Your task to perform on an android device: open app "Pandora - Music & Podcasts" (install if not already installed), go to login, and select forgot password Image 0: 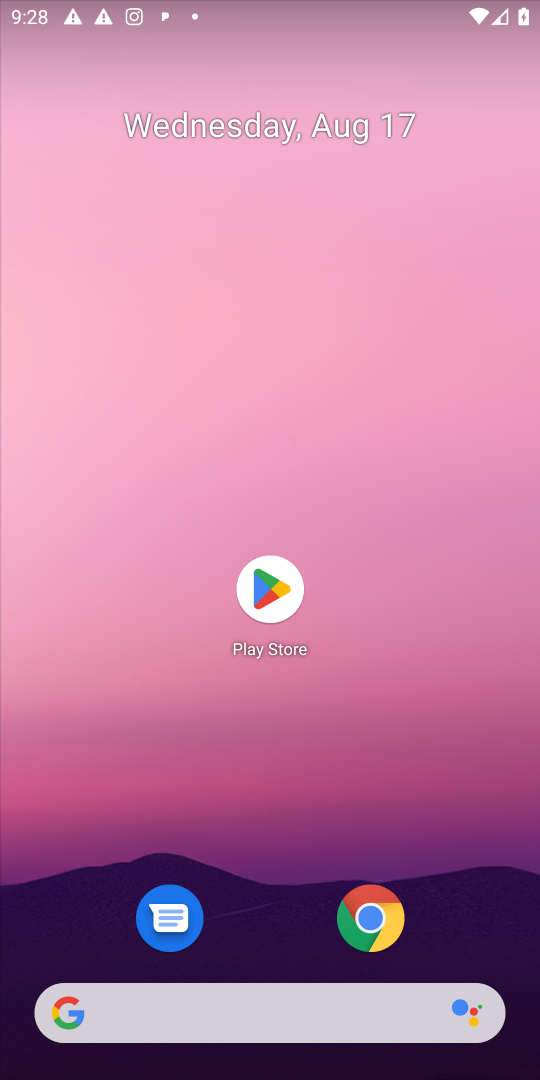
Step 0: press home button
Your task to perform on an android device: open app "Pandora - Music & Podcasts" (install if not already installed), go to login, and select forgot password Image 1: 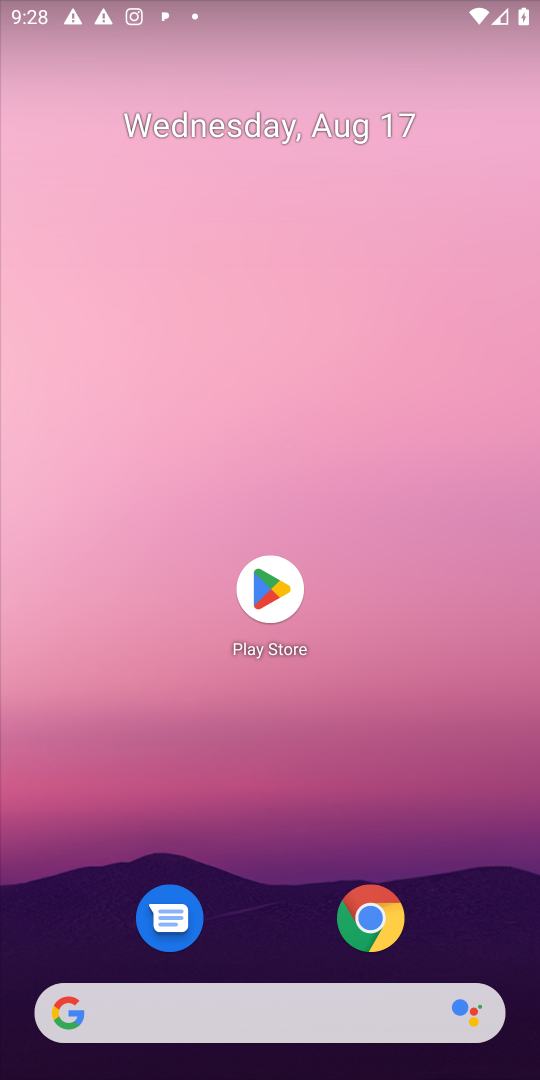
Step 1: click (276, 591)
Your task to perform on an android device: open app "Pandora - Music & Podcasts" (install if not already installed), go to login, and select forgot password Image 2: 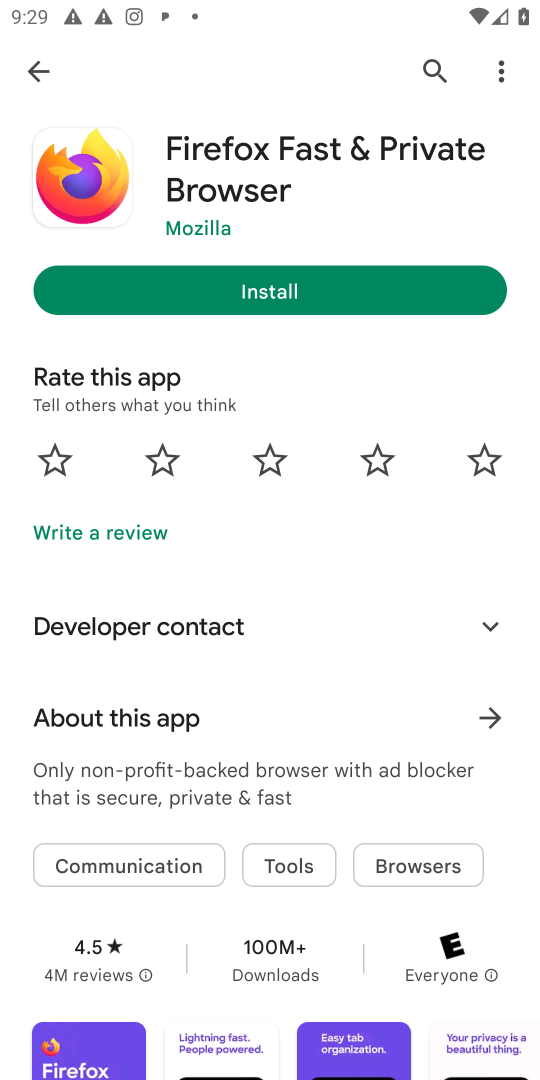
Step 2: click (437, 61)
Your task to perform on an android device: open app "Pandora - Music & Podcasts" (install if not already installed), go to login, and select forgot password Image 3: 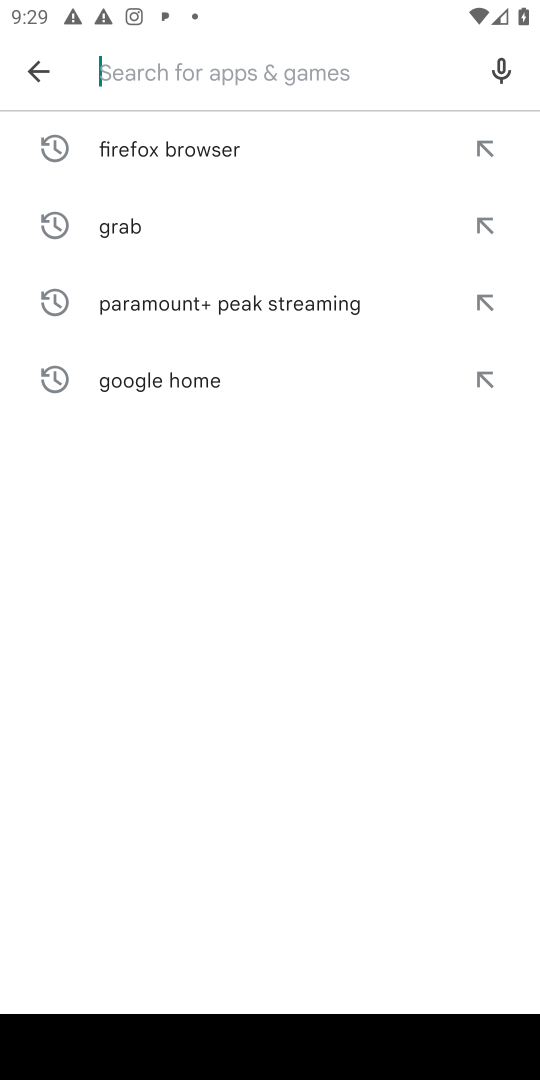
Step 3: type "Pandora - Music & Podcasts"
Your task to perform on an android device: open app "Pandora - Music & Podcasts" (install if not already installed), go to login, and select forgot password Image 4: 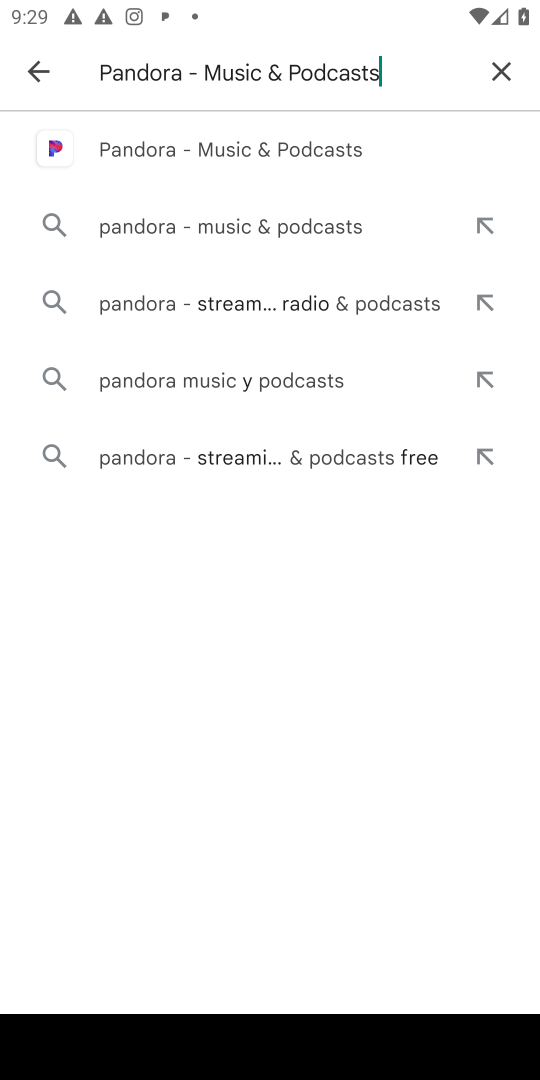
Step 4: click (262, 139)
Your task to perform on an android device: open app "Pandora - Music & Podcasts" (install if not already installed), go to login, and select forgot password Image 5: 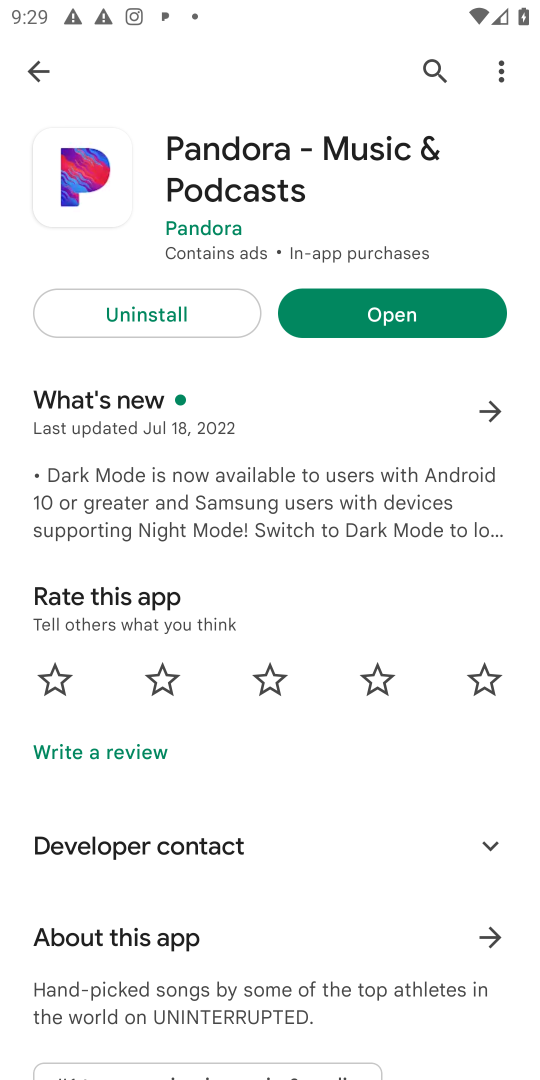
Step 5: click (406, 318)
Your task to perform on an android device: open app "Pandora - Music & Podcasts" (install if not already installed), go to login, and select forgot password Image 6: 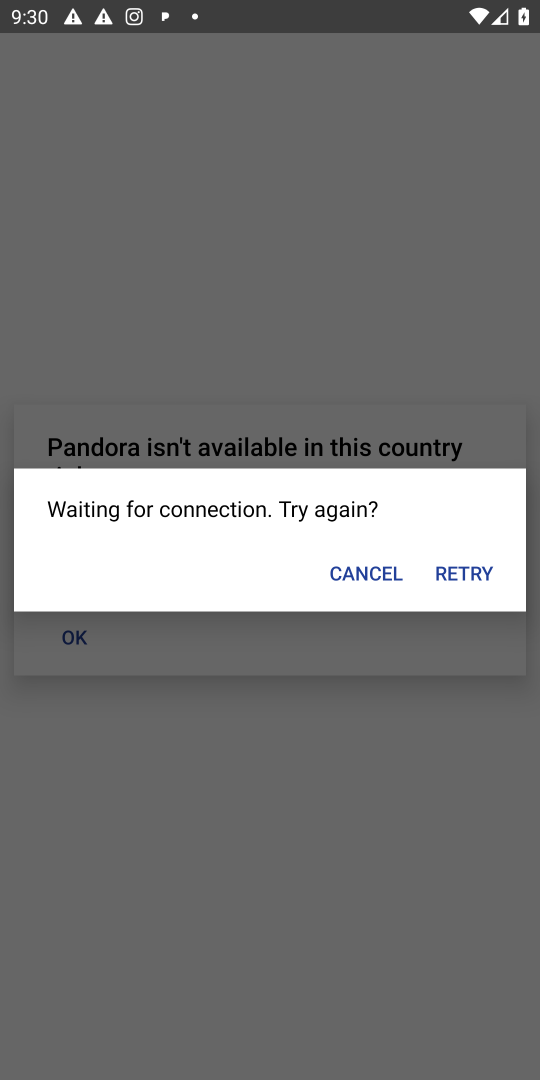
Step 6: task complete